Your task to perform on an android device: remove spam from my inbox in the gmail app Image 0: 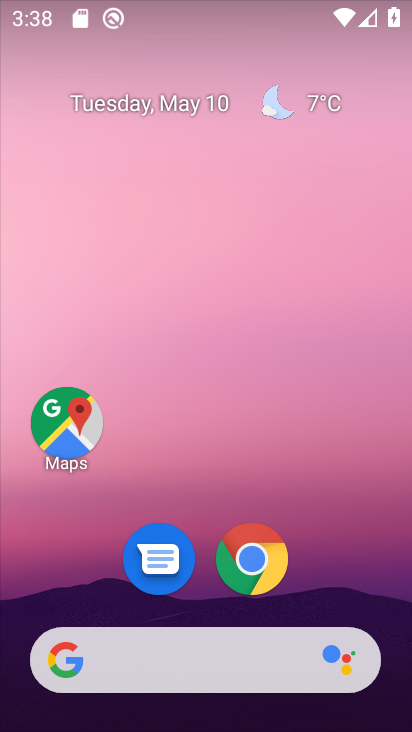
Step 0: drag from (74, 623) to (202, 180)
Your task to perform on an android device: remove spam from my inbox in the gmail app Image 1: 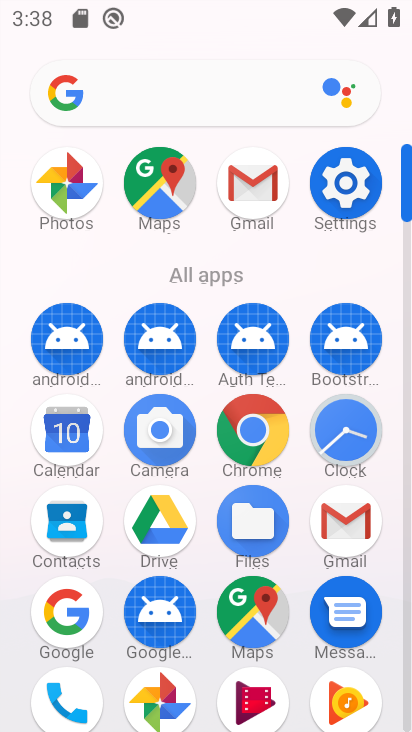
Step 1: click (354, 540)
Your task to perform on an android device: remove spam from my inbox in the gmail app Image 2: 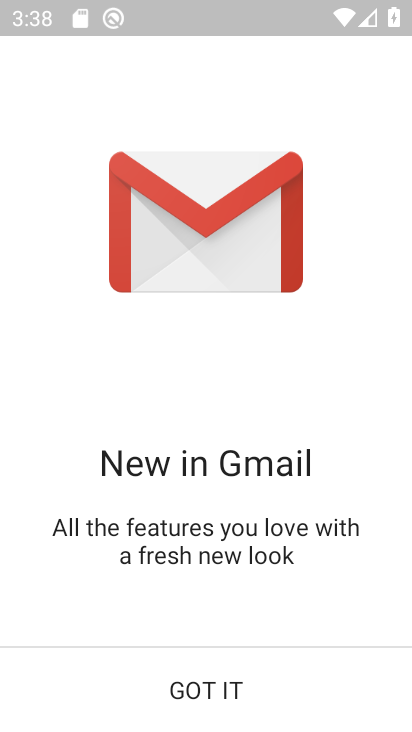
Step 2: click (234, 675)
Your task to perform on an android device: remove spam from my inbox in the gmail app Image 3: 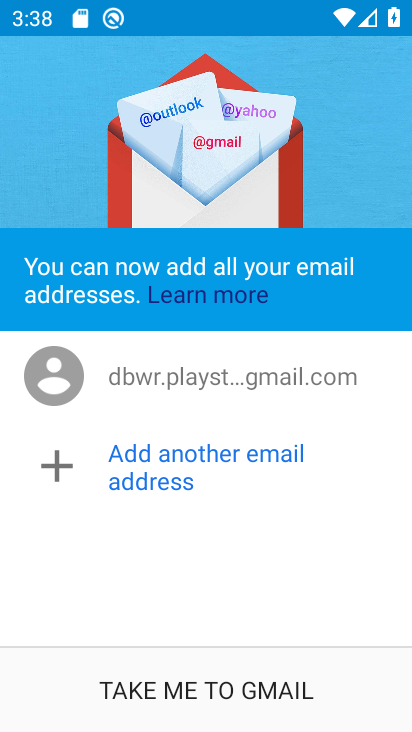
Step 3: click (232, 676)
Your task to perform on an android device: remove spam from my inbox in the gmail app Image 4: 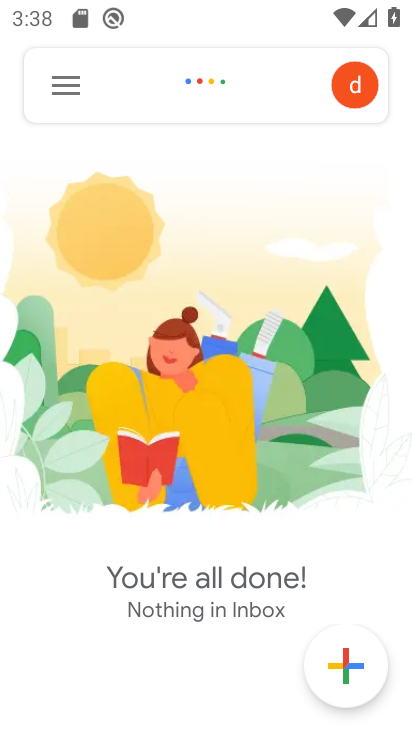
Step 4: click (51, 84)
Your task to perform on an android device: remove spam from my inbox in the gmail app Image 5: 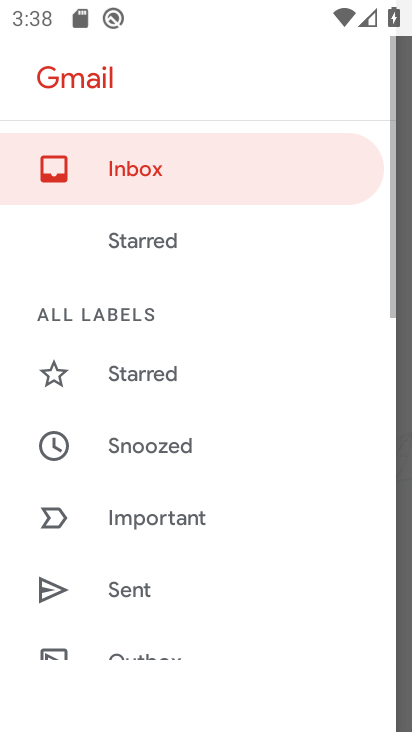
Step 5: drag from (127, 552) to (201, 197)
Your task to perform on an android device: remove spam from my inbox in the gmail app Image 6: 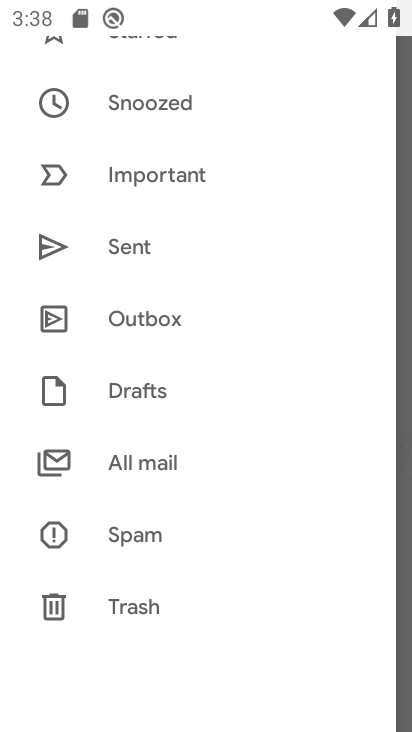
Step 6: drag from (177, 582) to (238, 221)
Your task to perform on an android device: remove spam from my inbox in the gmail app Image 7: 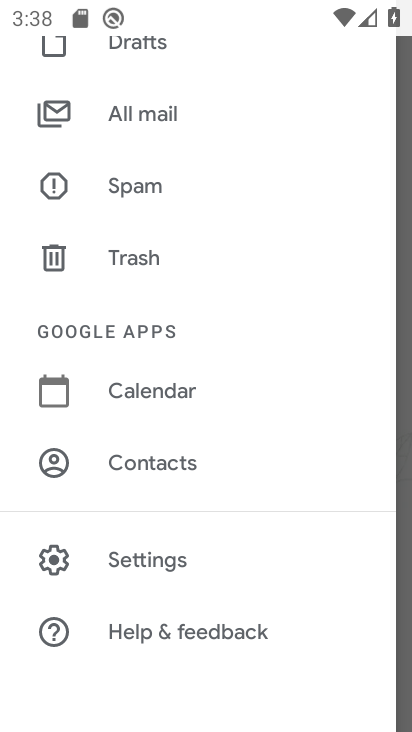
Step 7: drag from (184, 131) to (189, 342)
Your task to perform on an android device: remove spam from my inbox in the gmail app Image 8: 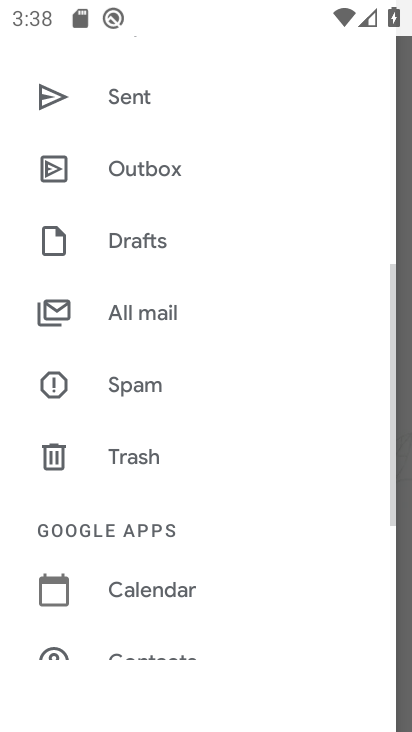
Step 8: click (124, 394)
Your task to perform on an android device: remove spam from my inbox in the gmail app Image 9: 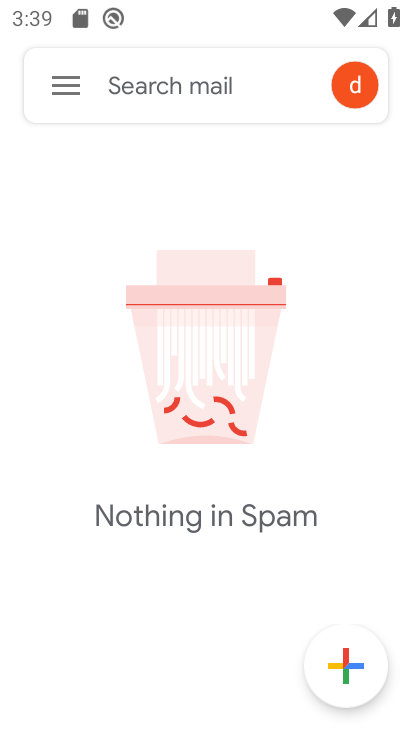
Step 9: task complete